Your task to perform on an android device: change the clock display to show seconds Image 0: 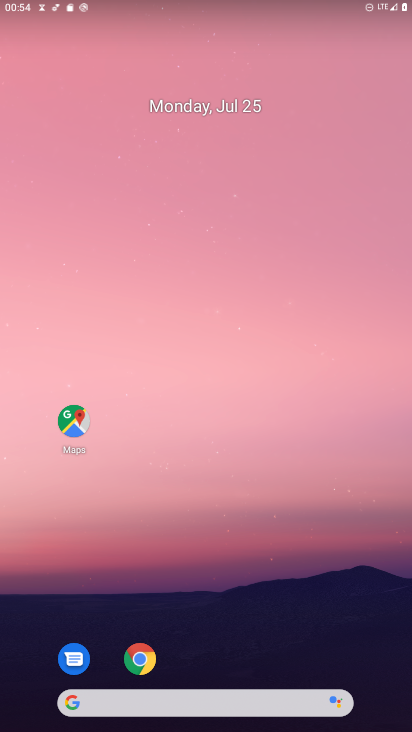
Step 0: click (242, 282)
Your task to perform on an android device: change the clock display to show seconds Image 1: 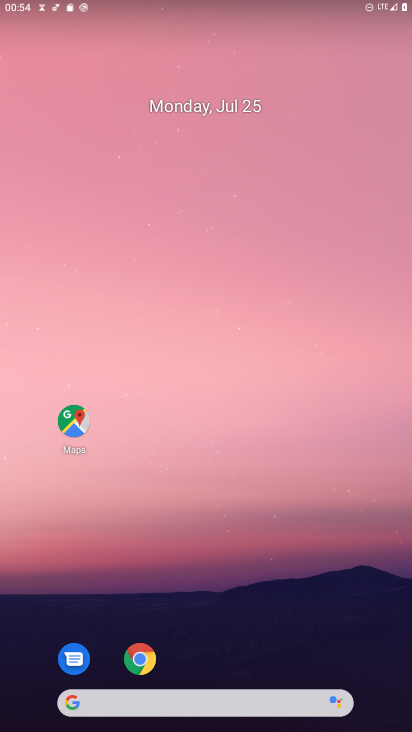
Step 1: drag from (234, 693) to (230, 297)
Your task to perform on an android device: change the clock display to show seconds Image 2: 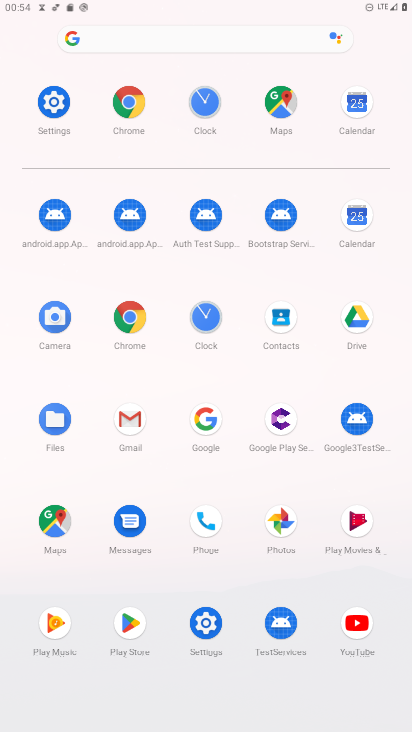
Step 2: click (198, 326)
Your task to perform on an android device: change the clock display to show seconds Image 3: 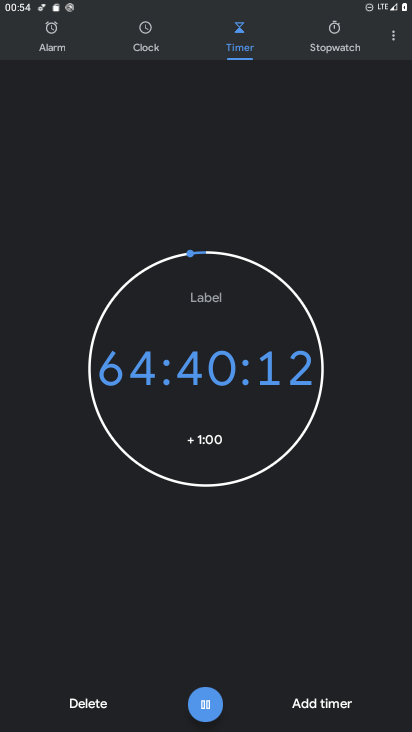
Step 3: click (399, 39)
Your task to perform on an android device: change the clock display to show seconds Image 4: 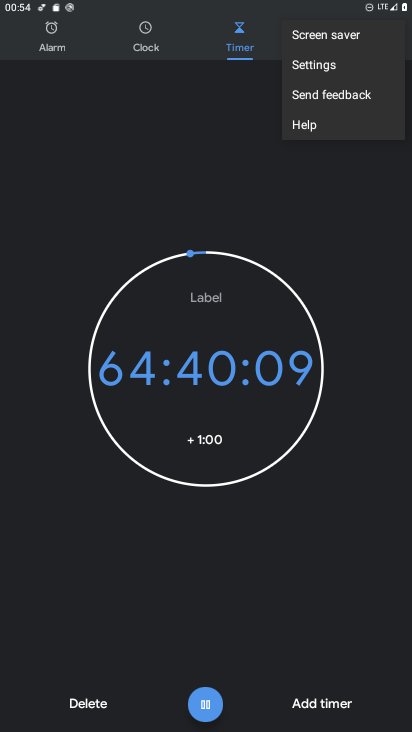
Step 4: click (347, 62)
Your task to perform on an android device: change the clock display to show seconds Image 5: 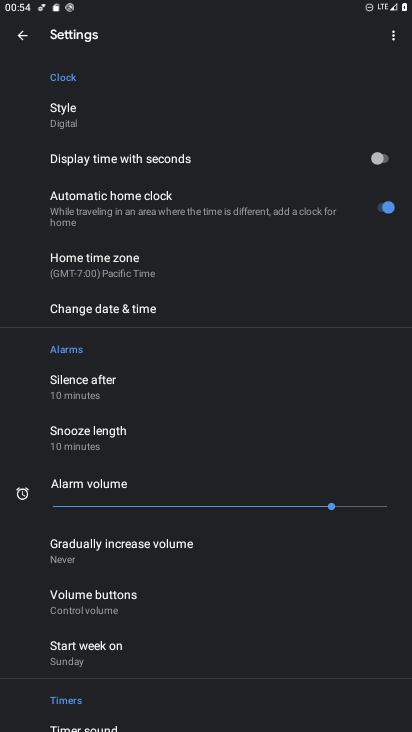
Step 5: click (384, 145)
Your task to perform on an android device: change the clock display to show seconds Image 6: 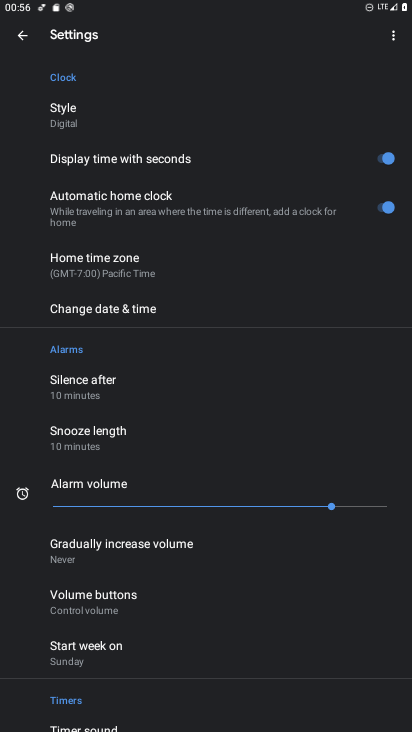
Step 6: task complete